Your task to perform on an android device: Do I have any events this weekend? Image 0: 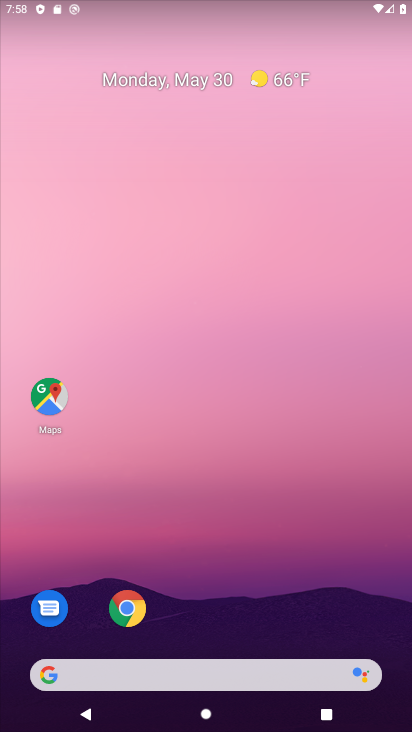
Step 0: drag from (222, 694) to (139, 104)
Your task to perform on an android device: Do I have any events this weekend? Image 1: 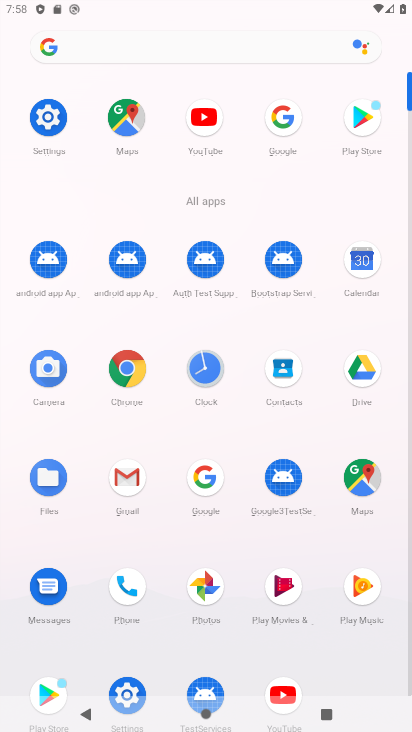
Step 1: click (355, 260)
Your task to perform on an android device: Do I have any events this weekend? Image 2: 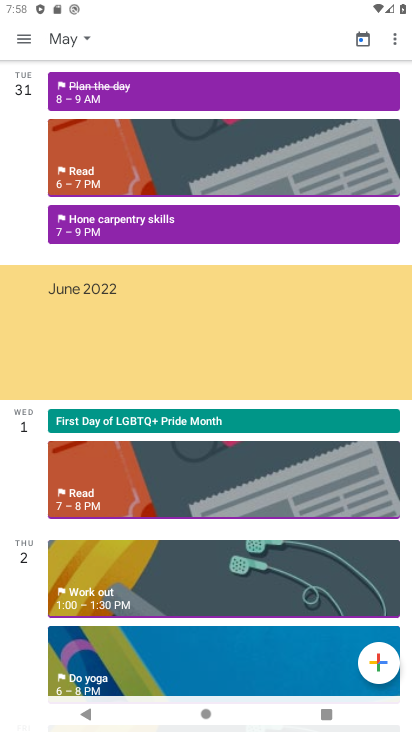
Step 2: click (23, 39)
Your task to perform on an android device: Do I have any events this weekend? Image 3: 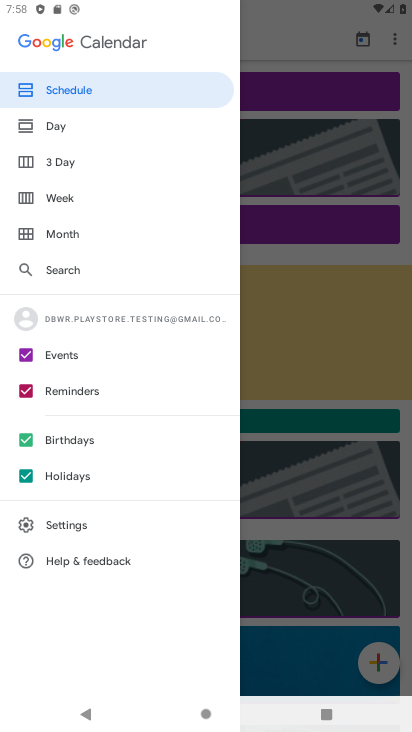
Step 3: click (31, 477)
Your task to perform on an android device: Do I have any events this weekend? Image 4: 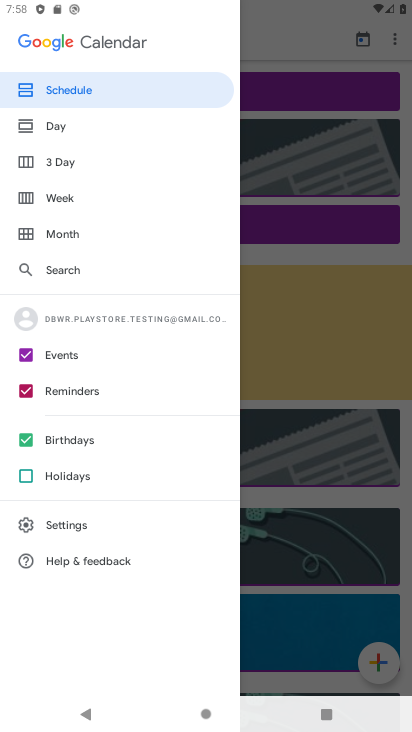
Step 4: click (26, 433)
Your task to perform on an android device: Do I have any events this weekend? Image 5: 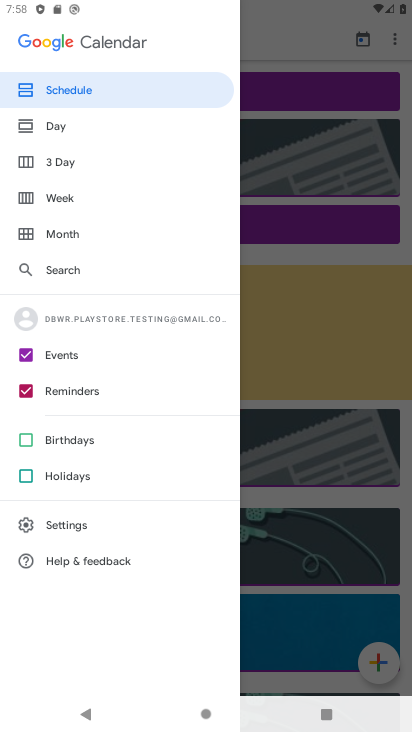
Step 5: click (30, 385)
Your task to perform on an android device: Do I have any events this weekend? Image 6: 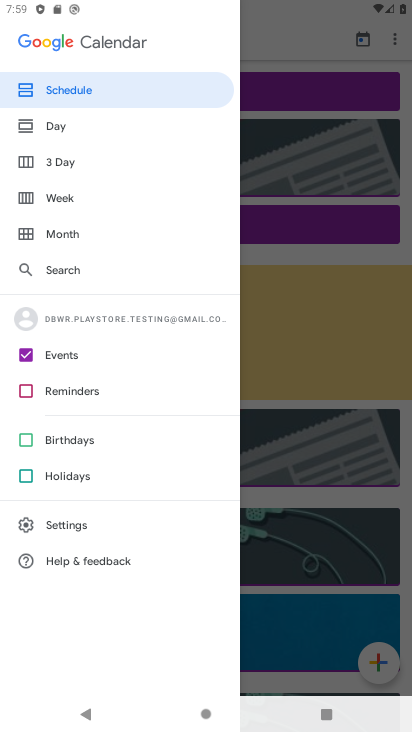
Step 6: click (73, 192)
Your task to perform on an android device: Do I have any events this weekend? Image 7: 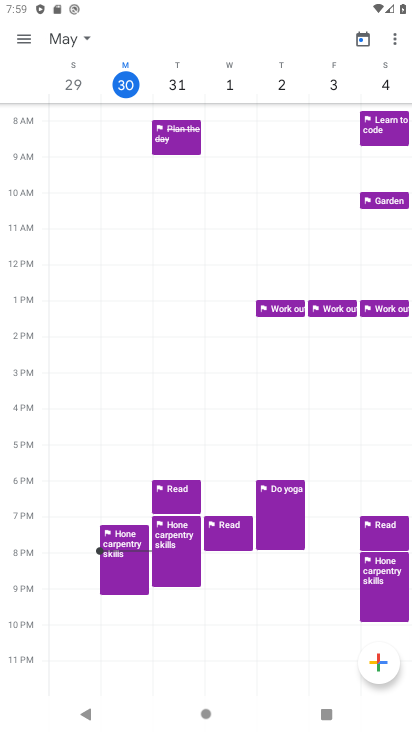
Step 7: click (386, 77)
Your task to perform on an android device: Do I have any events this weekend? Image 8: 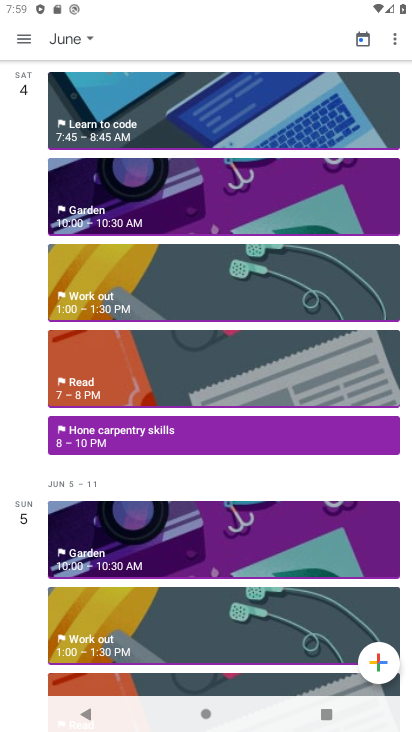
Step 8: task complete